Your task to perform on an android device: turn pop-ups off in chrome Image 0: 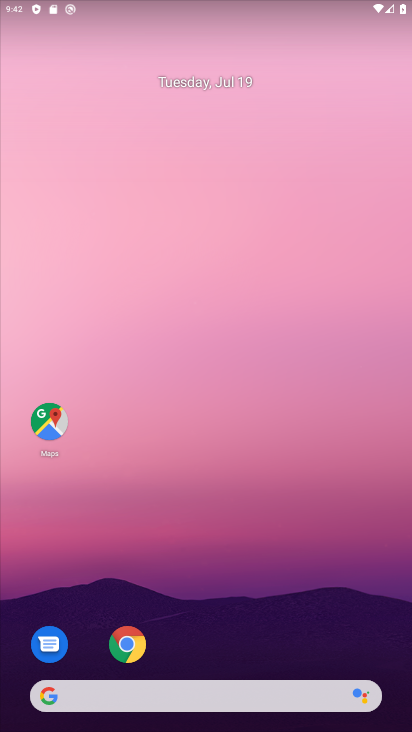
Step 0: click (131, 656)
Your task to perform on an android device: turn pop-ups off in chrome Image 1: 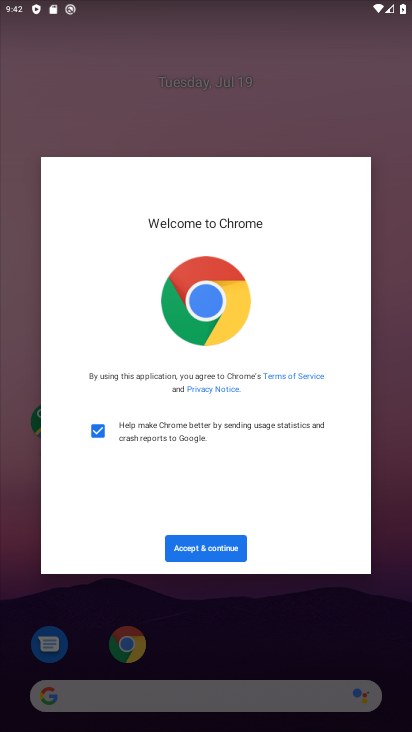
Step 1: click (202, 549)
Your task to perform on an android device: turn pop-ups off in chrome Image 2: 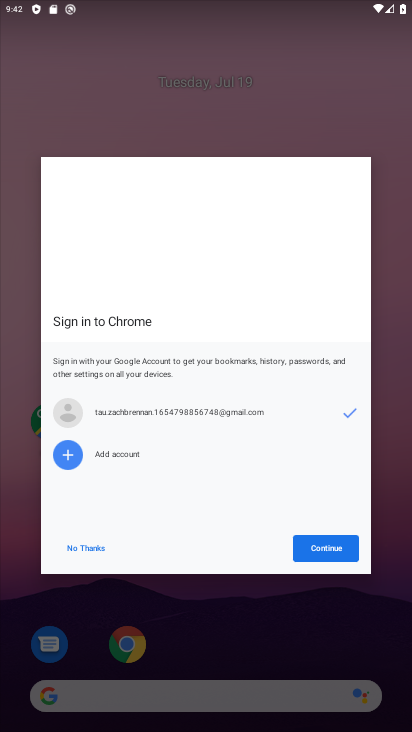
Step 2: click (337, 553)
Your task to perform on an android device: turn pop-ups off in chrome Image 3: 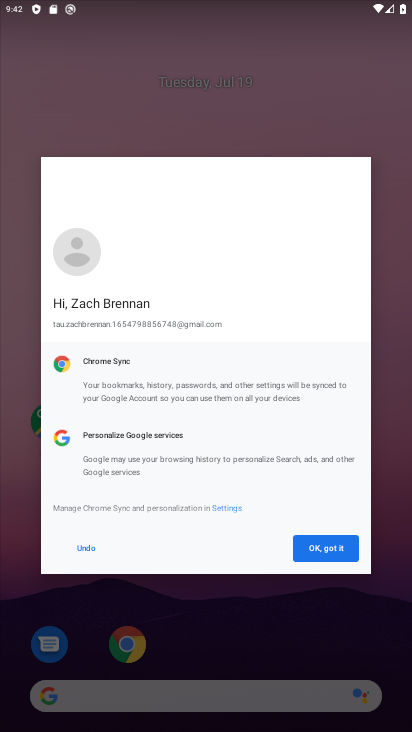
Step 3: click (337, 553)
Your task to perform on an android device: turn pop-ups off in chrome Image 4: 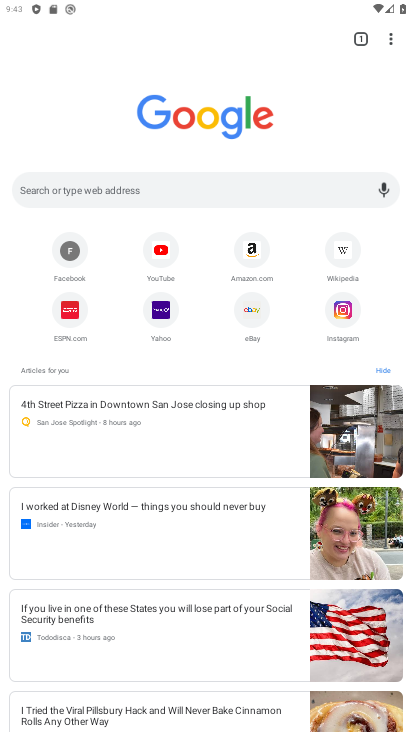
Step 4: task complete